Your task to perform on an android device: turn on wifi Image 0: 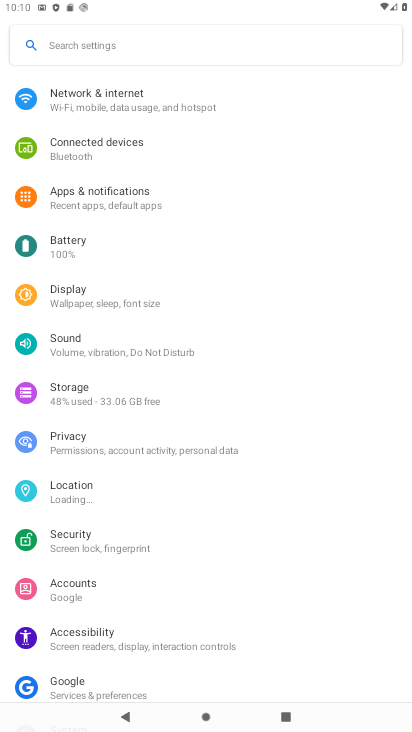
Step 0: press back button
Your task to perform on an android device: turn on wifi Image 1: 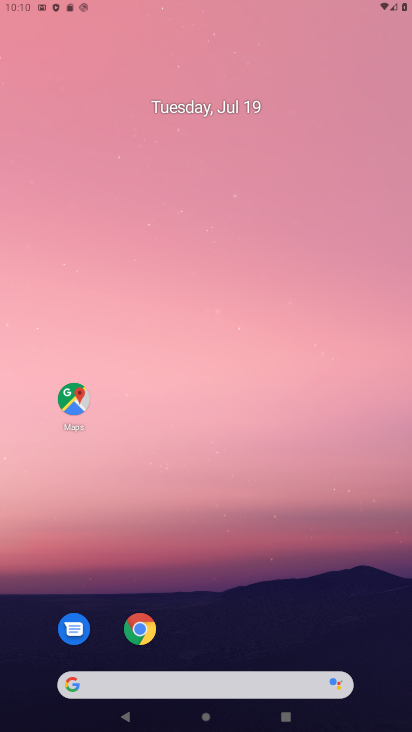
Step 1: drag from (253, 618) to (297, 179)
Your task to perform on an android device: turn on wifi Image 2: 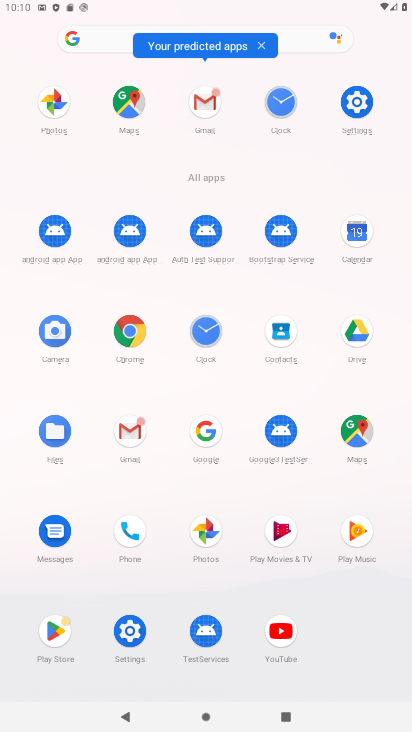
Step 2: click (127, 616)
Your task to perform on an android device: turn on wifi Image 3: 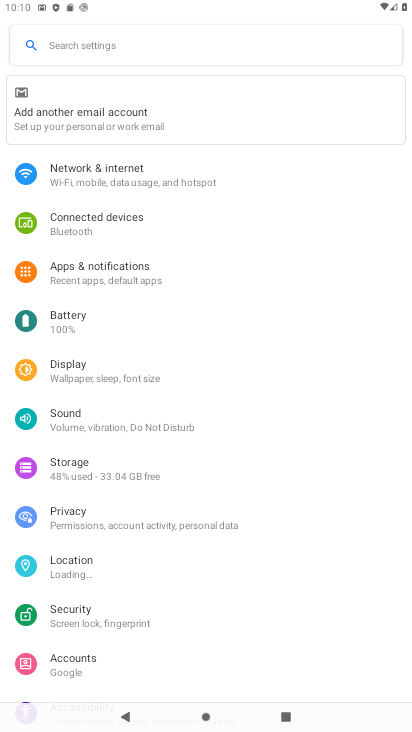
Step 3: click (175, 181)
Your task to perform on an android device: turn on wifi Image 4: 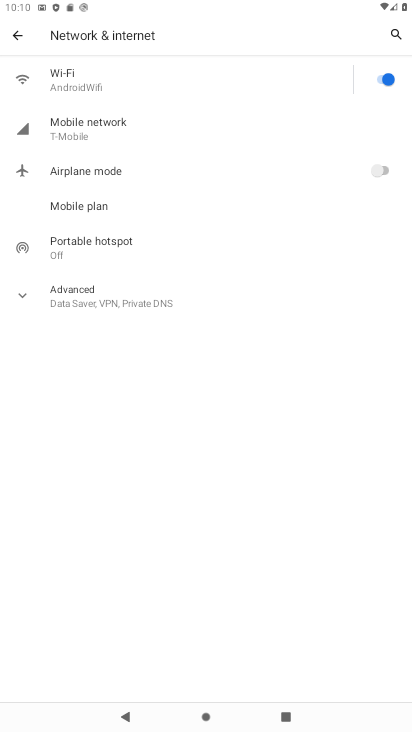
Step 4: click (197, 90)
Your task to perform on an android device: turn on wifi Image 5: 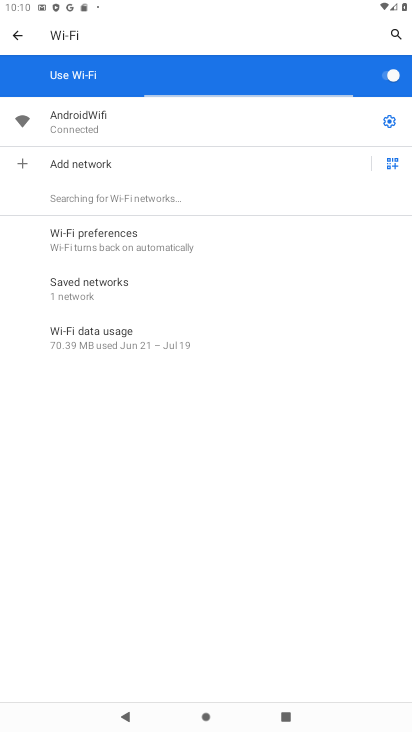
Step 5: task complete